Your task to perform on an android device: change text size in settings app Image 0: 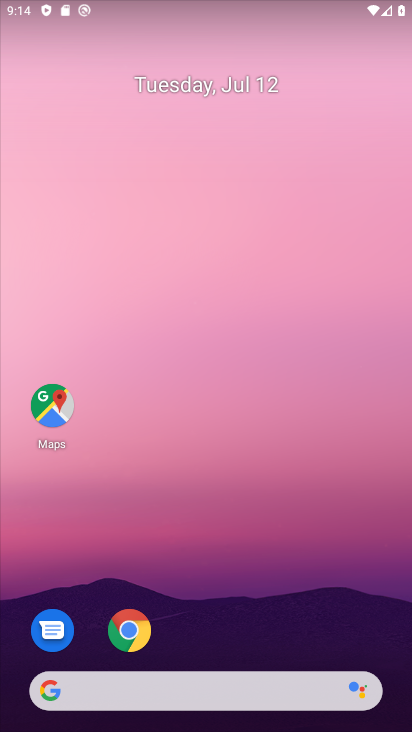
Step 0: drag from (244, 434) to (323, 121)
Your task to perform on an android device: change text size in settings app Image 1: 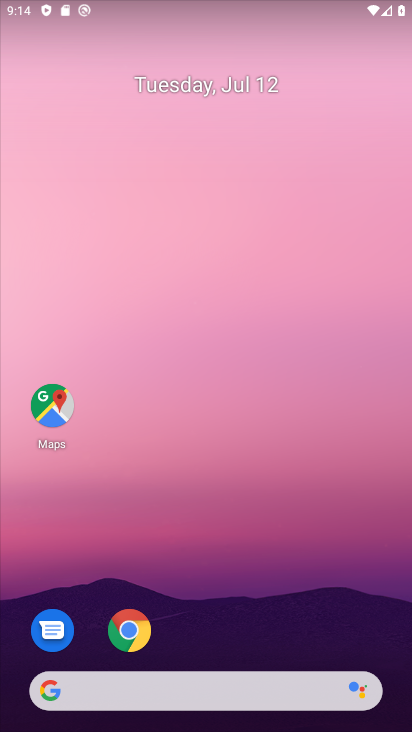
Step 1: drag from (242, 660) to (295, 32)
Your task to perform on an android device: change text size in settings app Image 2: 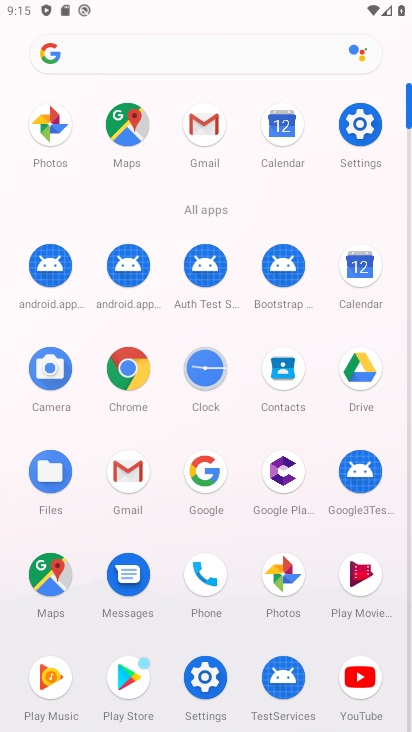
Step 2: click (350, 124)
Your task to perform on an android device: change text size in settings app Image 3: 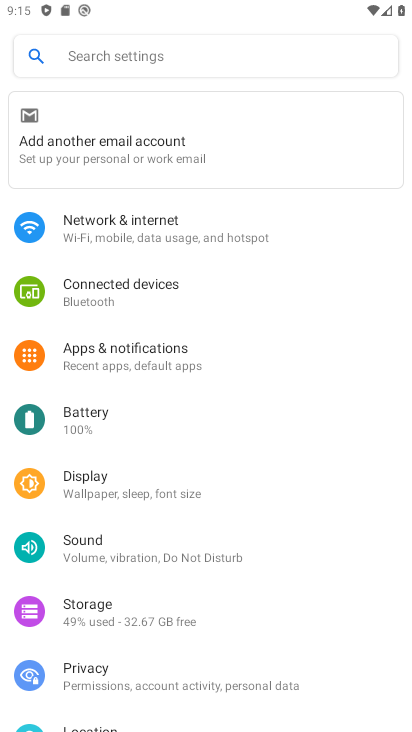
Step 3: click (121, 55)
Your task to perform on an android device: change text size in settings app Image 4: 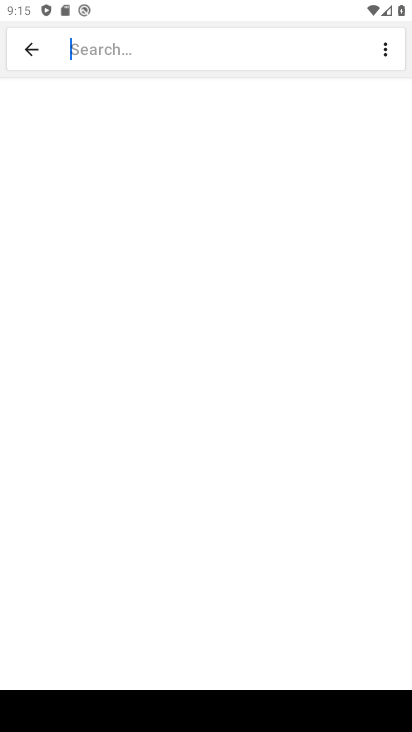
Step 4: type "text size"
Your task to perform on an android device: change text size in settings app Image 5: 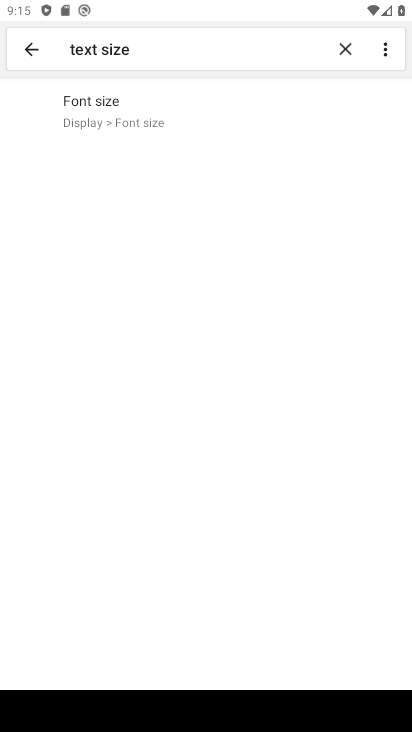
Step 5: click (75, 109)
Your task to perform on an android device: change text size in settings app Image 6: 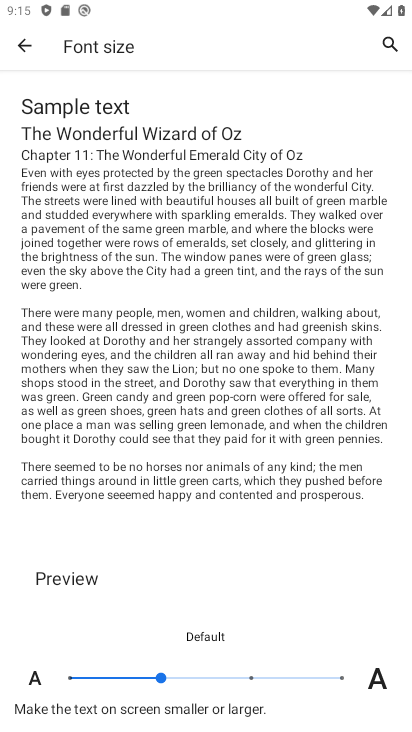
Step 6: task complete